Your task to perform on an android device: Toggle the flashlight Image 0: 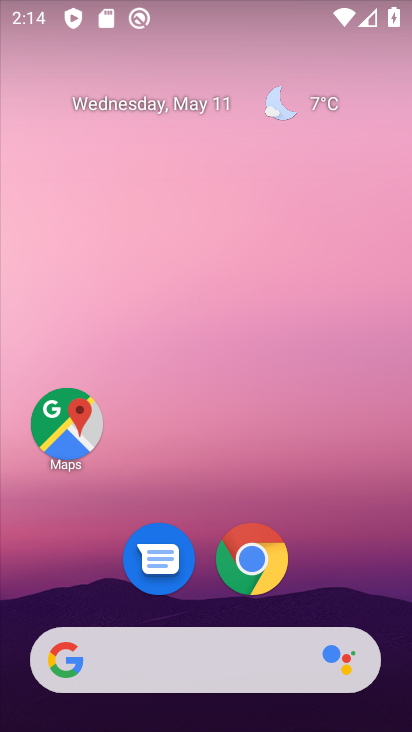
Step 0: drag from (325, 486) to (236, 97)
Your task to perform on an android device: Toggle the flashlight Image 1: 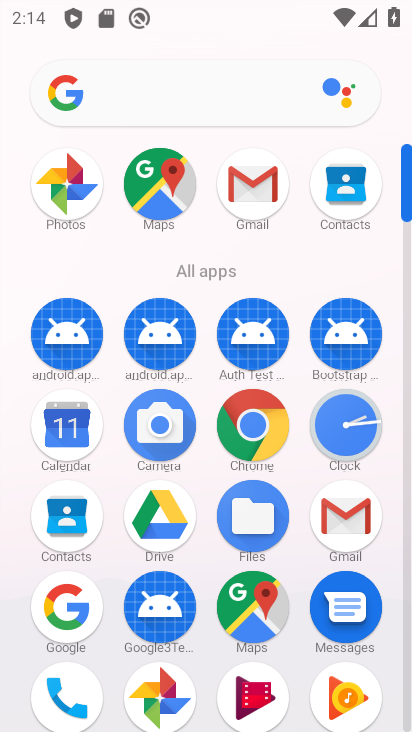
Step 1: task complete